Your task to perform on an android device: toggle wifi Image 0: 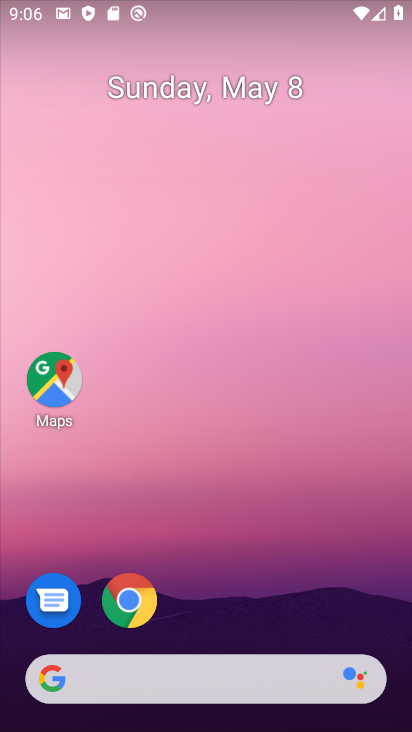
Step 0: drag from (357, 602) to (297, 1)
Your task to perform on an android device: toggle wifi Image 1: 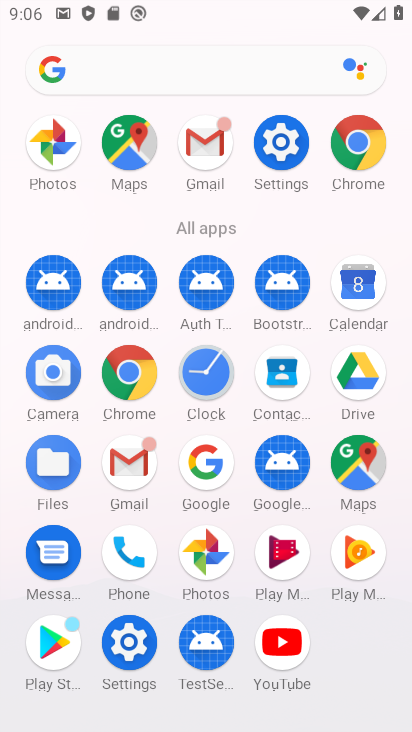
Step 1: click (280, 152)
Your task to perform on an android device: toggle wifi Image 2: 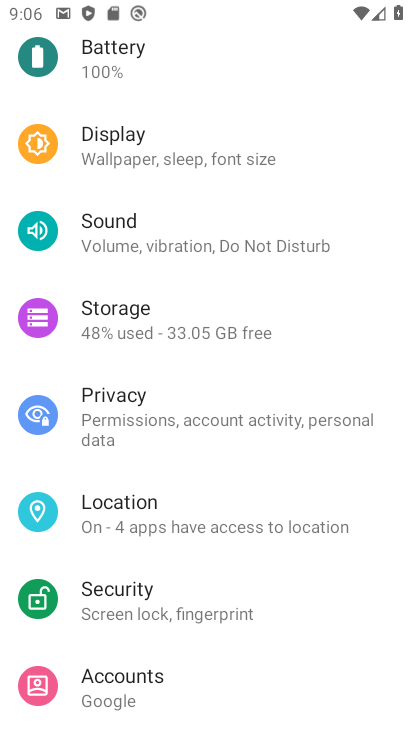
Step 2: drag from (370, 141) to (367, 554)
Your task to perform on an android device: toggle wifi Image 3: 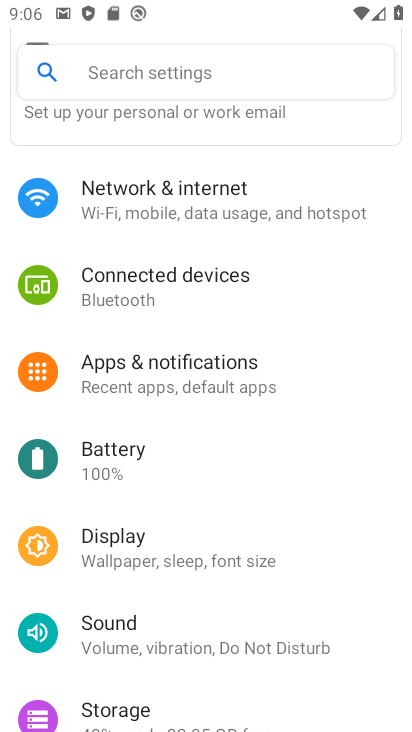
Step 3: click (194, 208)
Your task to perform on an android device: toggle wifi Image 4: 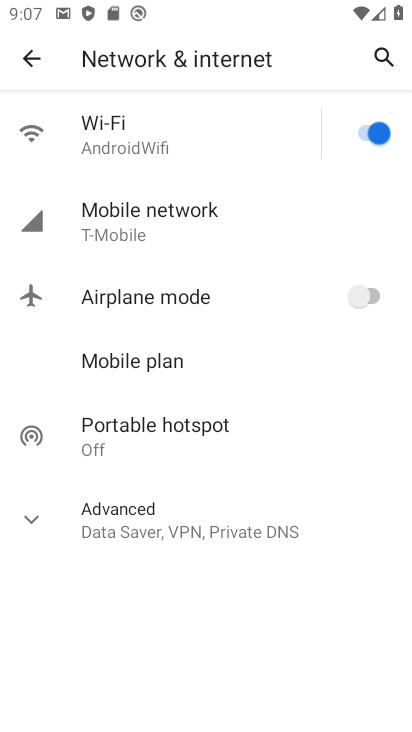
Step 4: click (359, 137)
Your task to perform on an android device: toggle wifi Image 5: 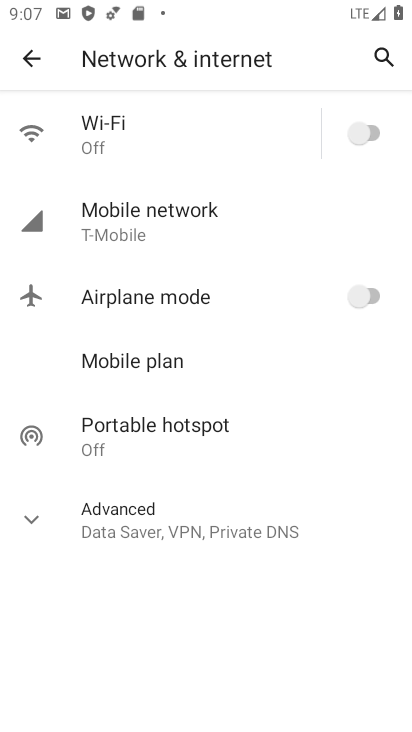
Step 5: task complete